Your task to perform on an android device: toggle improve location accuracy Image 0: 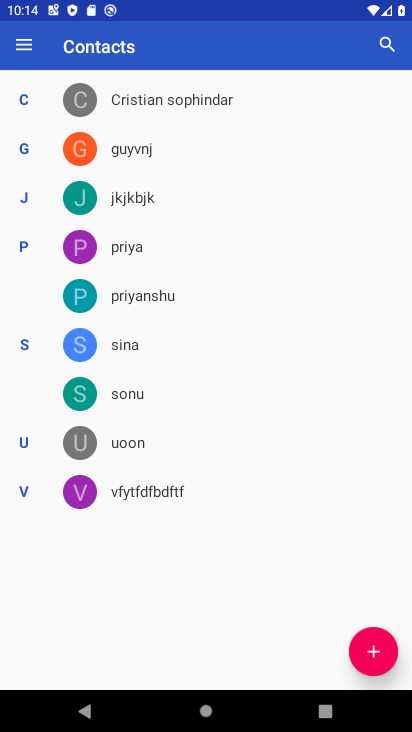
Step 0: press home button
Your task to perform on an android device: toggle improve location accuracy Image 1: 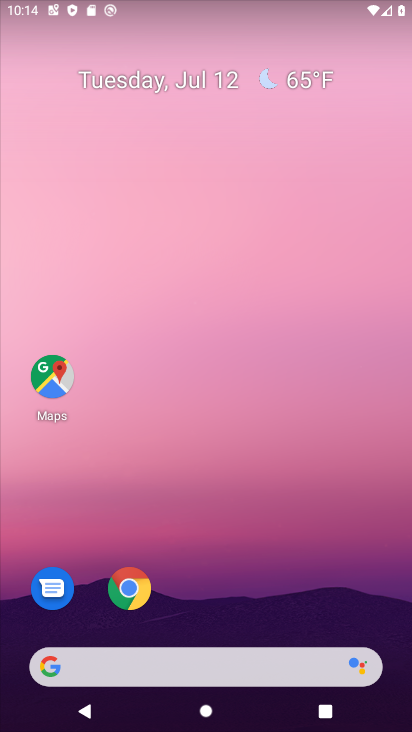
Step 1: drag from (29, 715) to (259, 9)
Your task to perform on an android device: toggle improve location accuracy Image 2: 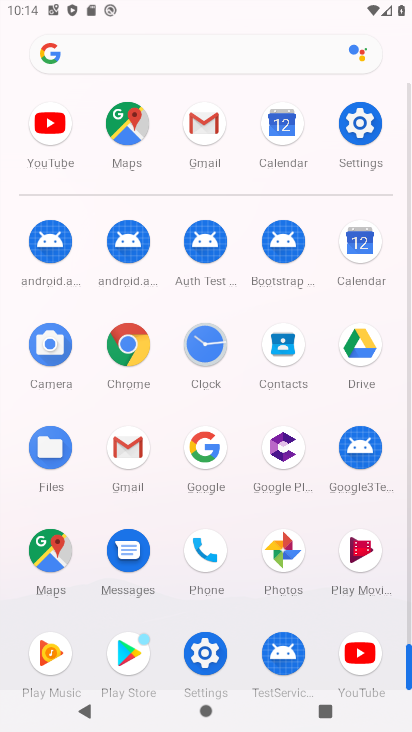
Step 2: click (203, 653)
Your task to perform on an android device: toggle improve location accuracy Image 3: 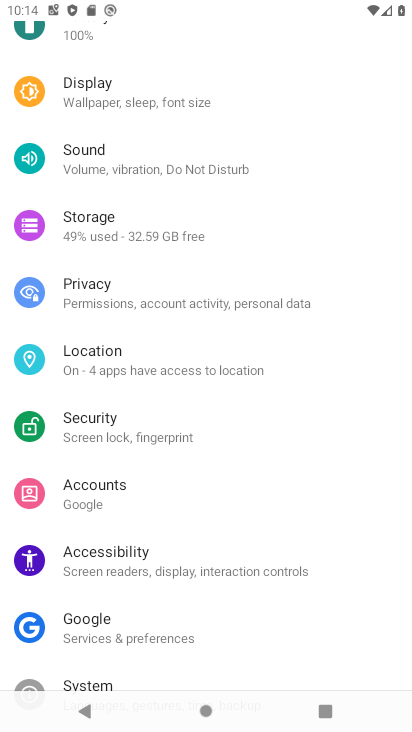
Step 3: click (101, 359)
Your task to perform on an android device: toggle improve location accuracy Image 4: 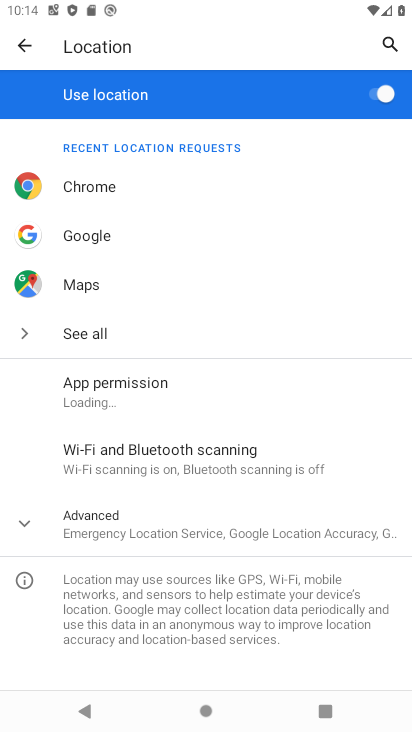
Step 4: click (109, 523)
Your task to perform on an android device: toggle improve location accuracy Image 5: 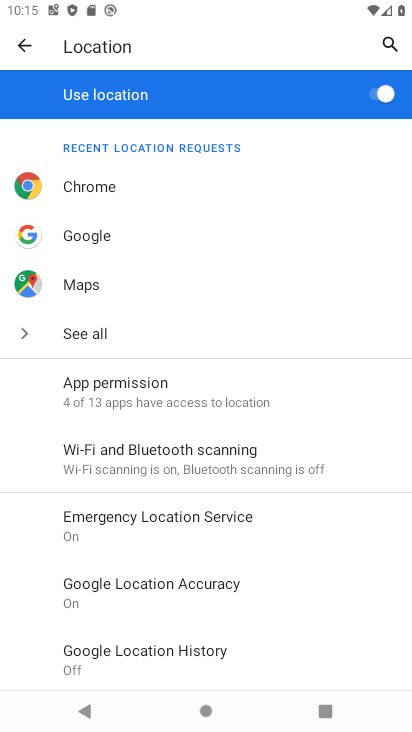
Step 5: click (158, 599)
Your task to perform on an android device: toggle improve location accuracy Image 6: 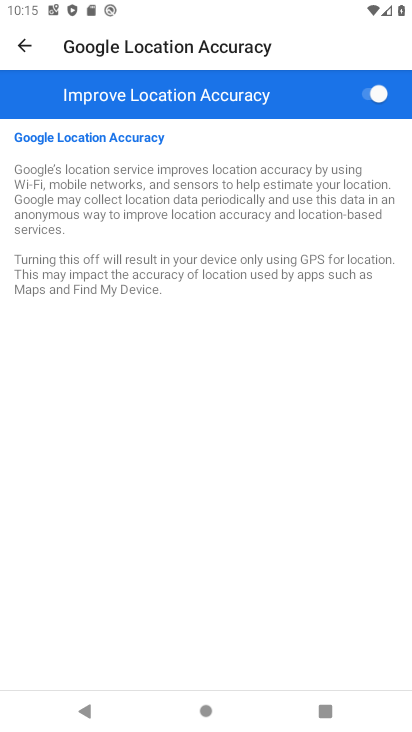
Step 6: task complete